Your task to perform on an android device: toggle pop-ups in chrome Image 0: 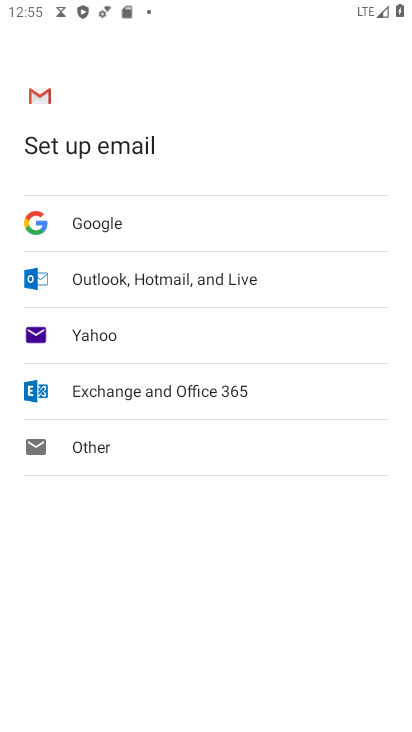
Step 0: press home button
Your task to perform on an android device: toggle pop-ups in chrome Image 1: 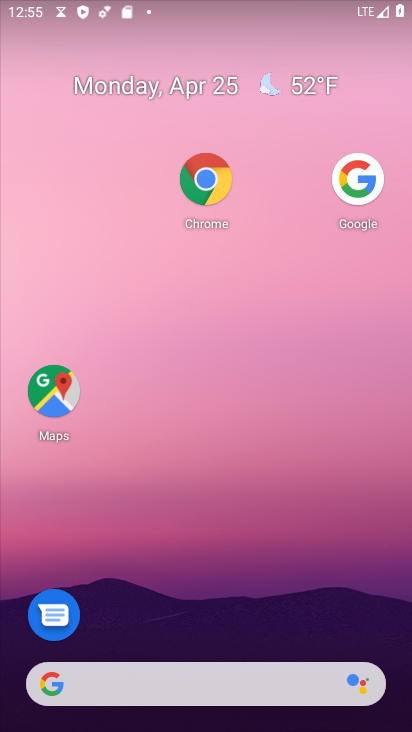
Step 1: click (212, 178)
Your task to perform on an android device: toggle pop-ups in chrome Image 2: 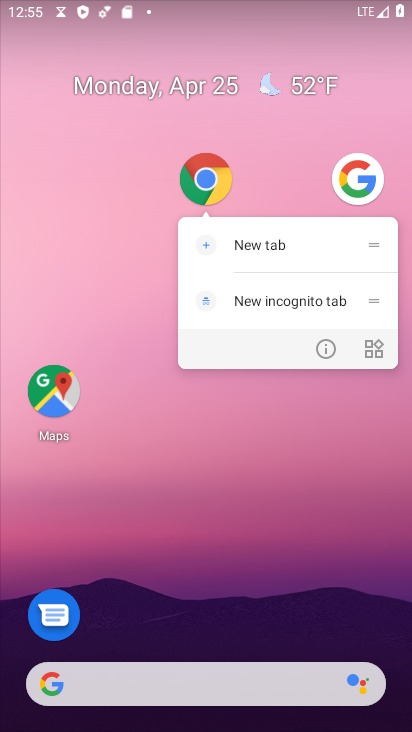
Step 2: click (205, 192)
Your task to perform on an android device: toggle pop-ups in chrome Image 3: 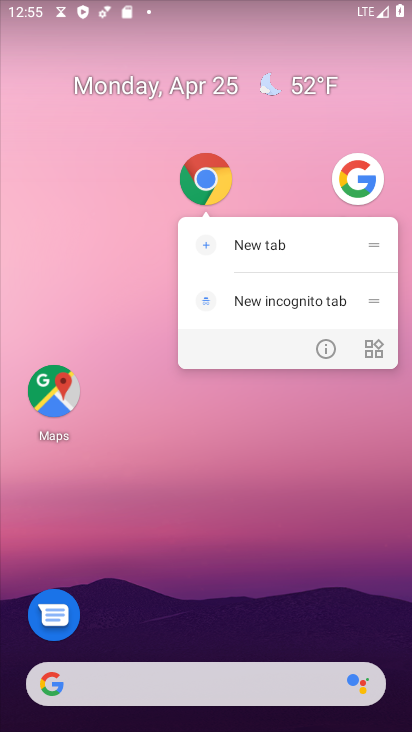
Step 3: click (201, 179)
Your task to perform on an android device: toggle pop-ups in chrome Image 4: 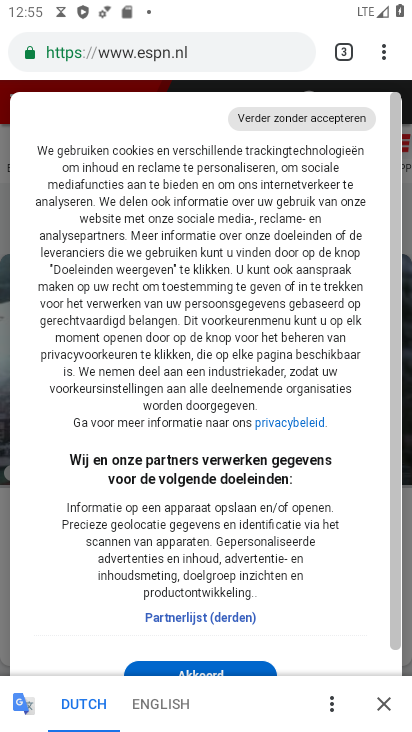
Step 4: drag from (383, 52) to (229, 653)
Your task to perform on an android device: toggle pop-ups in chrome Image 5: 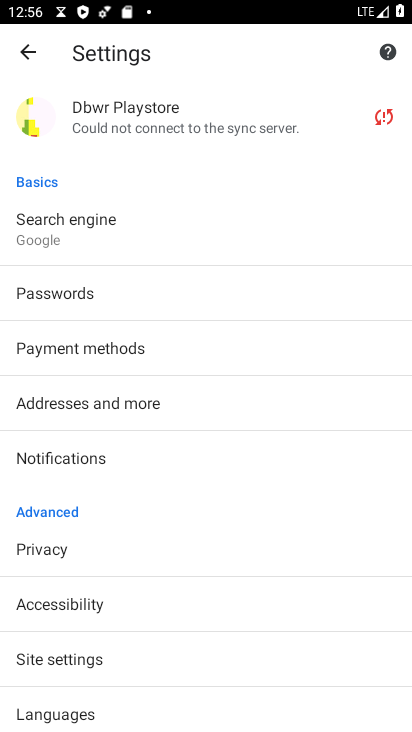
Step 5: click (108, 657)
Your task to perform on an android device: toggle pop-ups in chrome Image 6: 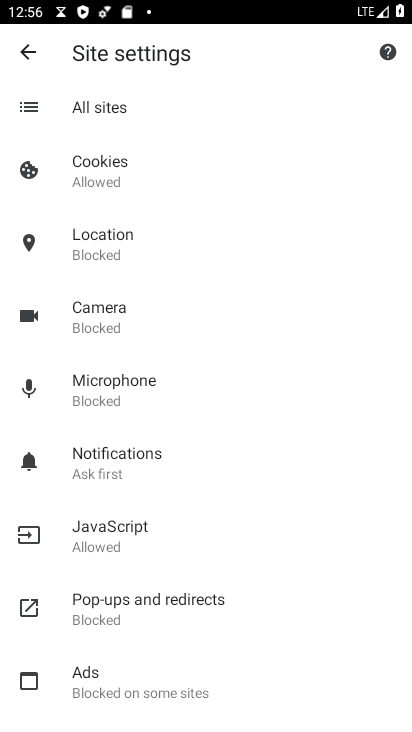
Step 6: click (168, 603)
Your task to perform on an android device: toggle pop-ups in chrome Image 7: 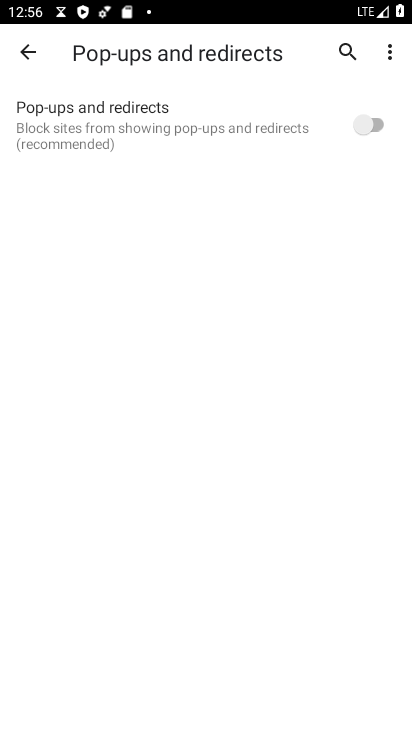
Step 7: click (376, 119)
Your task to perform on an android device: toggle pop-ups in chrome Image 8: 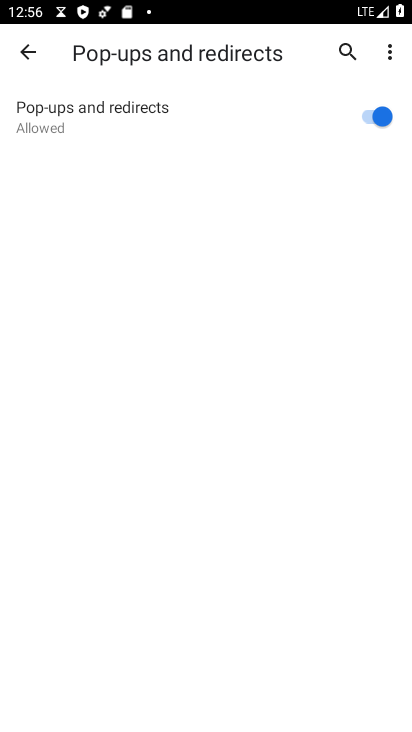
Step 8: task complete